Your task to perform on an android device: Open internet settings Image 0: 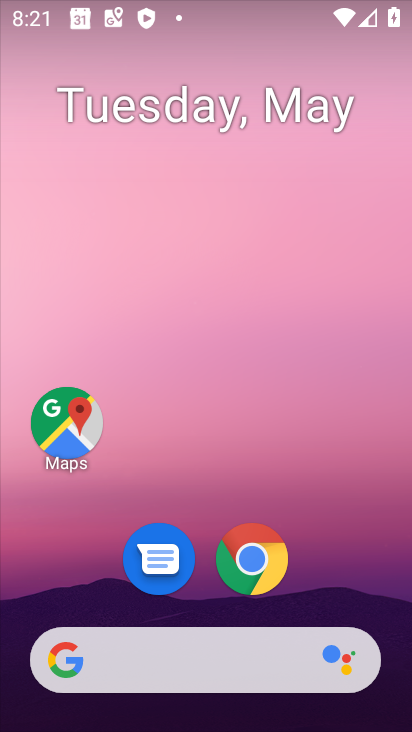
Step 0: drag from (231, 605) to (229, 133)
Your task to perform on an android device: Open internet settings Image 1: 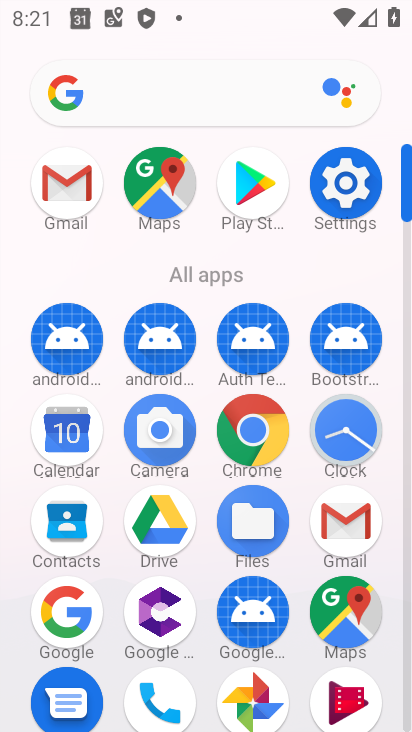
Step 1: click (346, 184)
Your task to perform on an android device: Open internet settings Image 2: 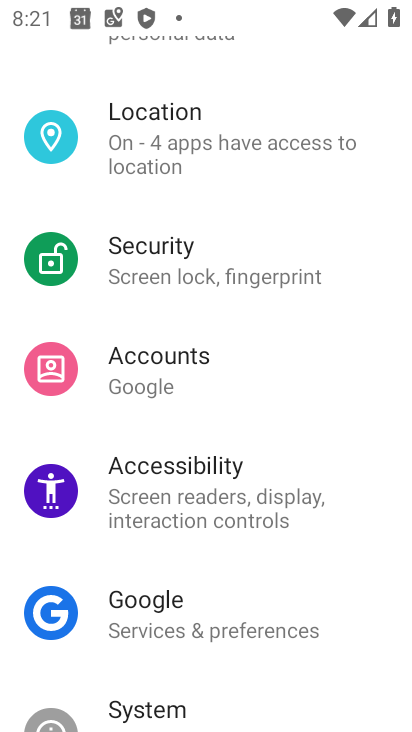
Step 2: drag from (258, 161) to (154, 703)
Your task to perform on an android device: Open internet settings Image 3: 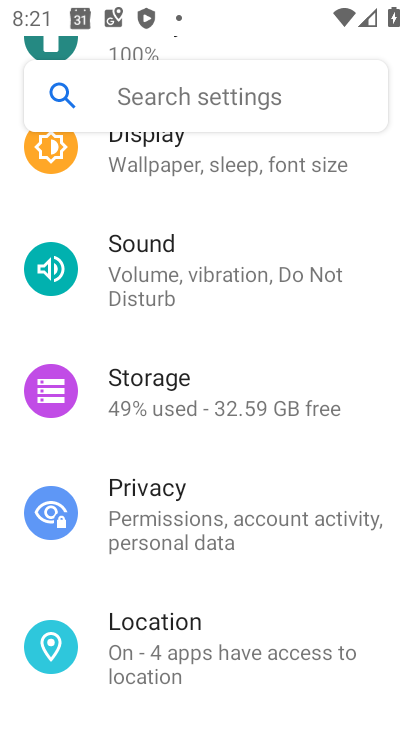
Step 3: drag from (222, 215) to (226, 711)
Your task to perform on an android device: Open internet settings Image 4: 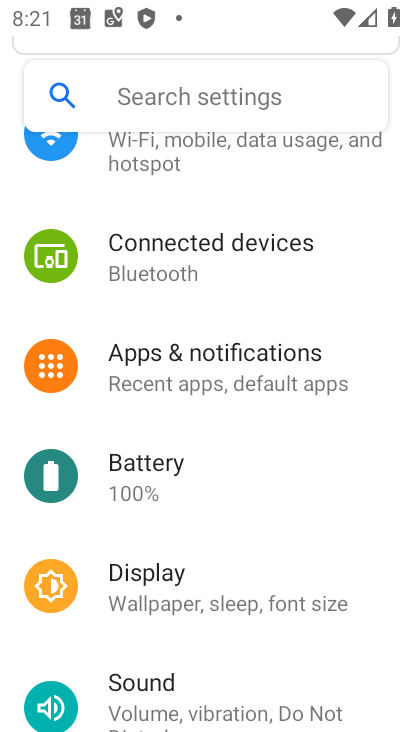
Step 4: drag from (263, 301) to (219, 688)
Your task to perform on an android device: Open internet settings Image 5: 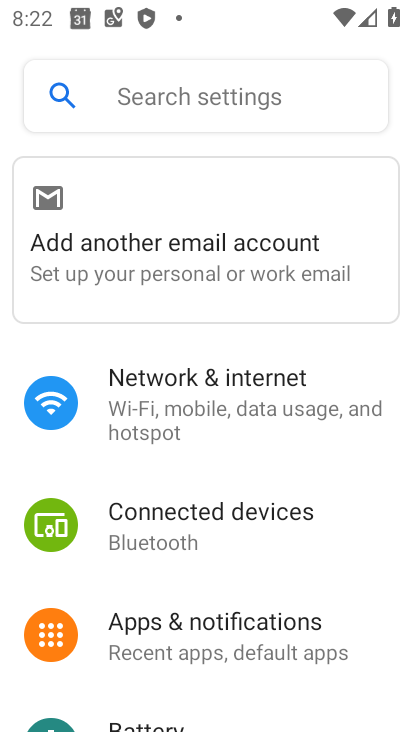
Step 5: click (224, 388)
Your task to perform on an android device: Open internet settings Image 6: 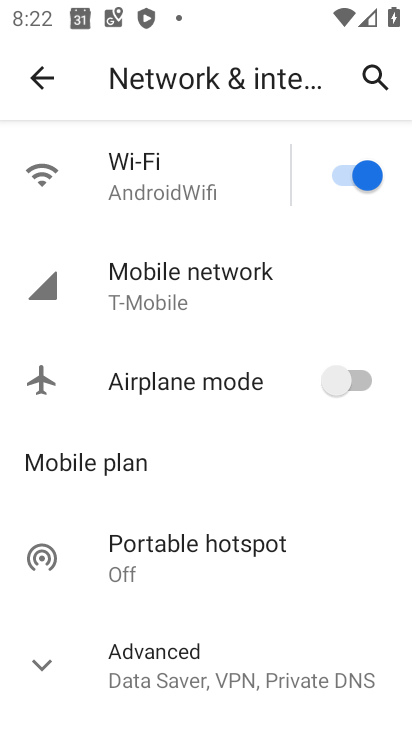
Step 6: task complete